Your task to perform on an android device: manage bookmarks in the chrome app Image 0: 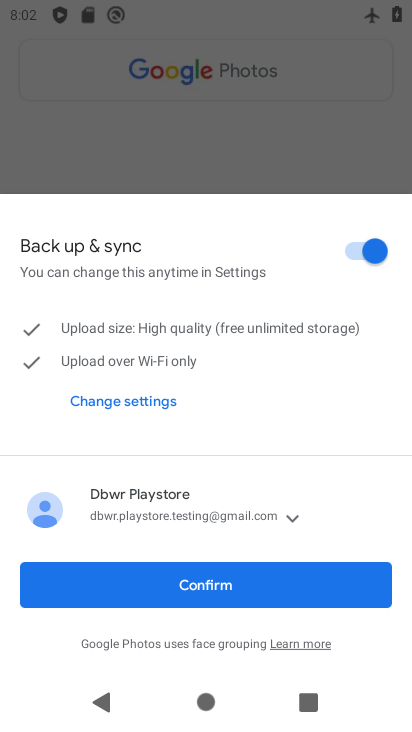
Step 0: press home button
Your task to perform on an android device: manage bookmarks in the chrome app Image 1: 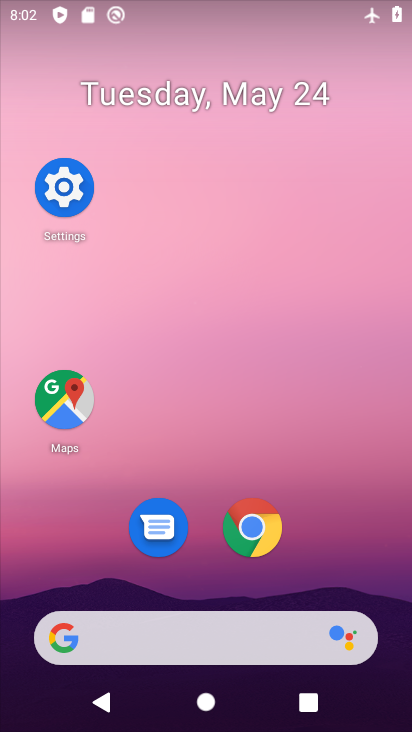
Step 1: click (266, 528)
Your task to perform on an android device: manage bookmarks in the chrome app Image 2: 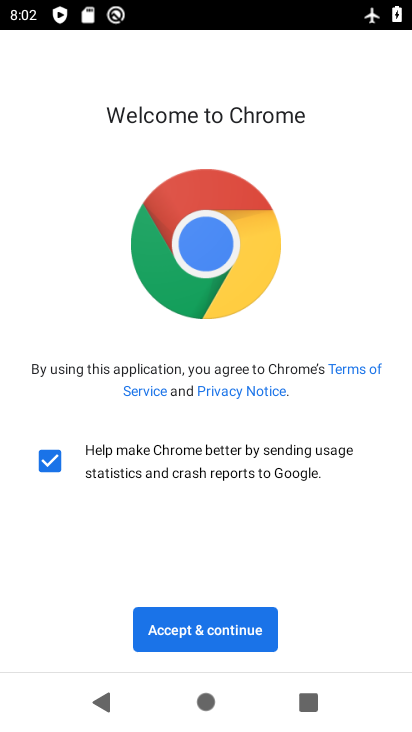
Step 2: click (239, 619)
Your task to perform on an android device: manage bookmarks in the chrome app Image 3: 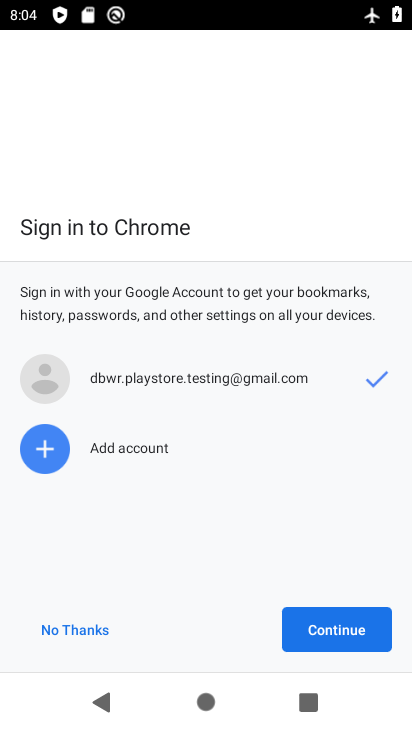
Step 3: click (336, 629)
Your task to perform on an android device: manage bookmarks in the chrome app Image 4: 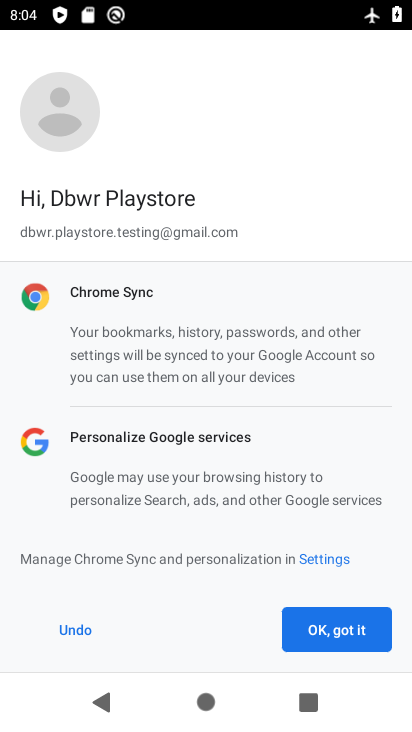
Step 4: click (336, 629)
Your task to perform on an android device: manage bookmarks in the chrome app Image 5: 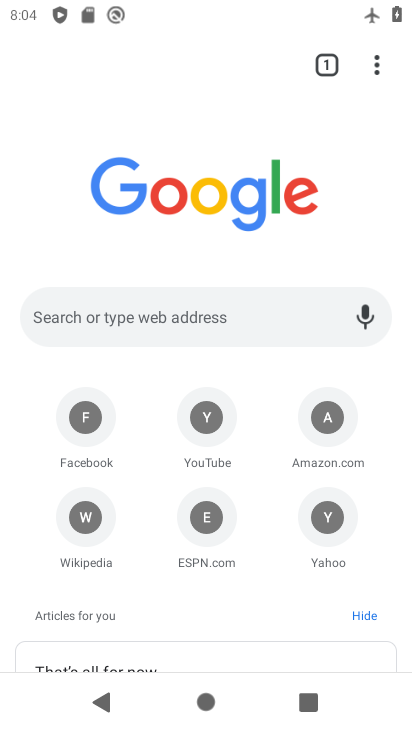
Step 5: click (378, 78)
Your task to perform on an android device: manage bookmarks in the chrome app Image 6: 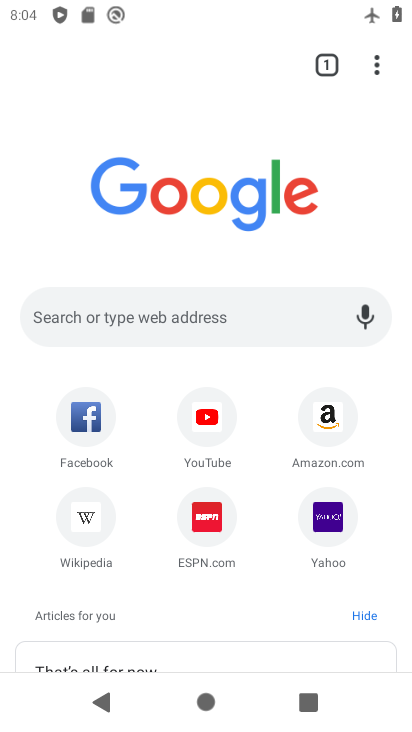
Step 6: click (363, 66)
Your task to perform on an android device: manage bookmarks in the chrome app Image 7: 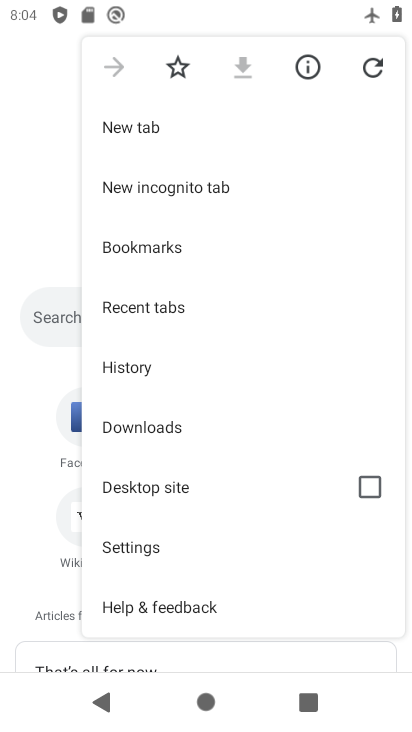
Step 7: click (193, 247)
Your task to perform on an android device: manage bookmarks in the chrome app Image 8: 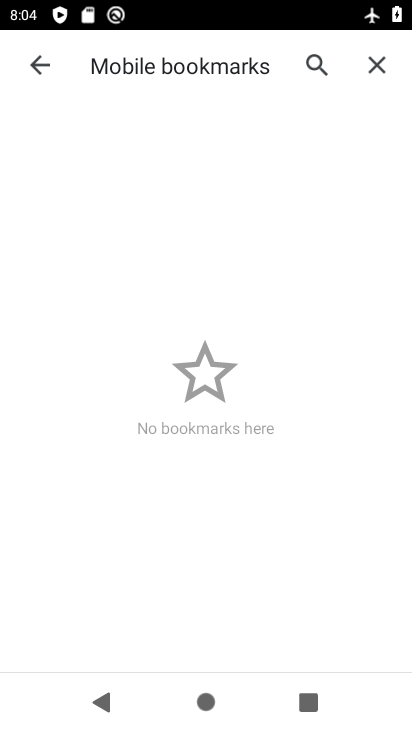
Step 8: task complete